Your task to perform on an android device: create a new album in the google photos Image 0: 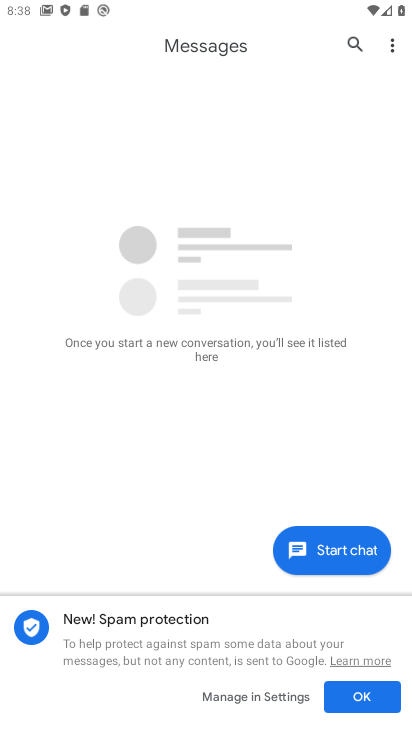
Step 0: press home button
Your task to perform on an android device: create a new album in the google photos Image 1: 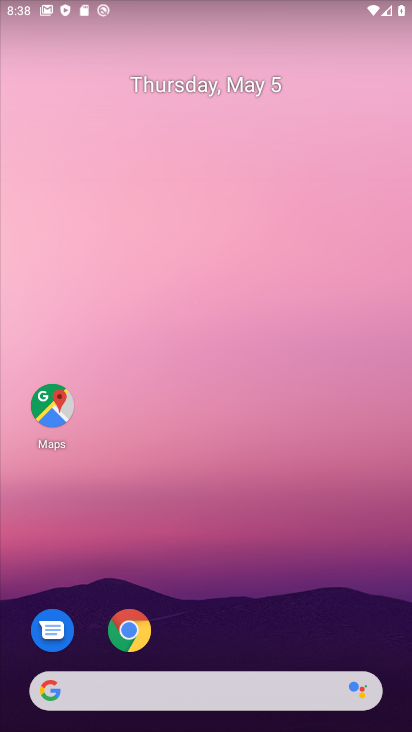
Step 1: drag from (263, 601) to (260, 2)
Your task to perform on an android device: create a new album in the google photos Image 2: 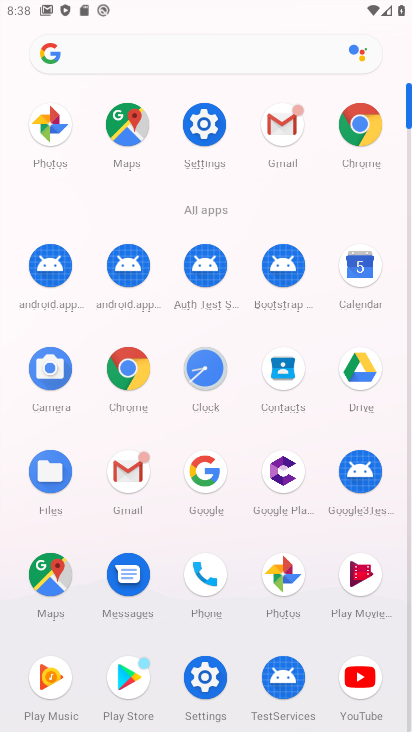
Step 2: click (271, 582)
Your task to perform on an android device: create a new album in the google photos Image 3: 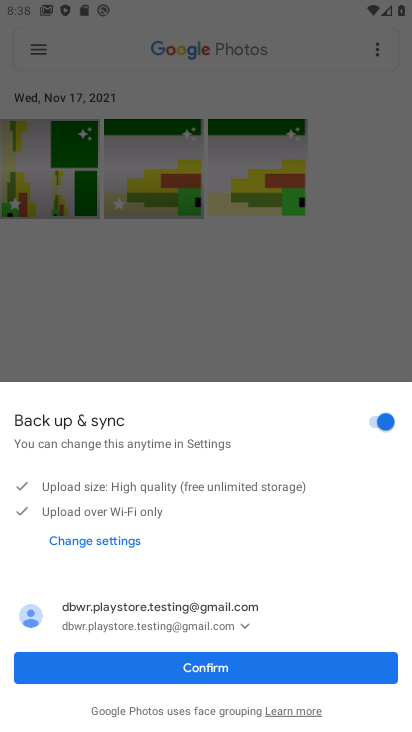
Step 3: click (118, 670)
Your task to perform on an android device: create a new album in the google photos Image 4: 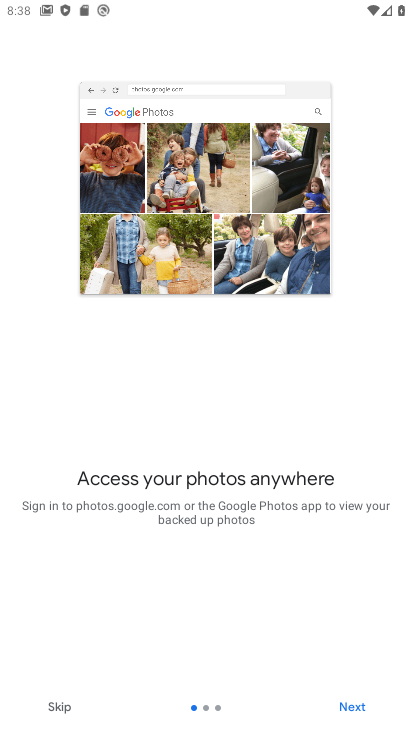
Step 4: click (344, 698)
Your task to perform on an android device: create a new album in the google photos Image 5: 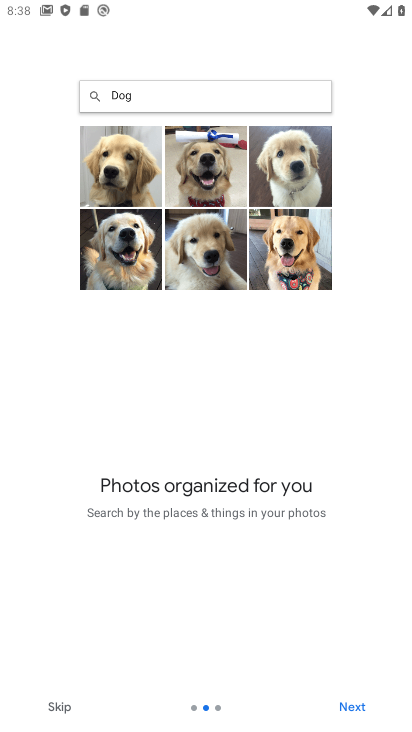
Step 5: click (344, 698)
Your task to perform on an android device: create a new album in the google photos Image 6: 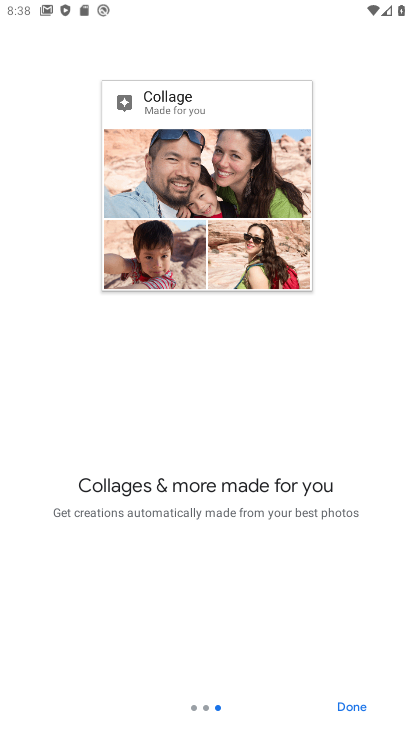
Step 6: click (344, 698)
Your task to perform on an android device: create a new album in the google photos Image 7: 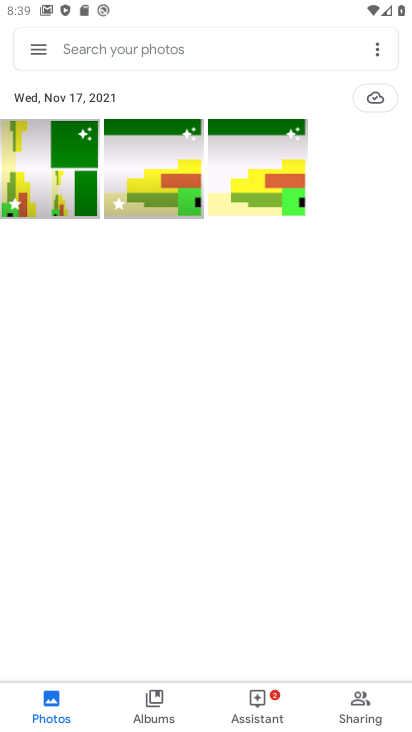
Step 7: click (145, 702)
Your task to perform on an android device: create a new album in the google photos Image 8: 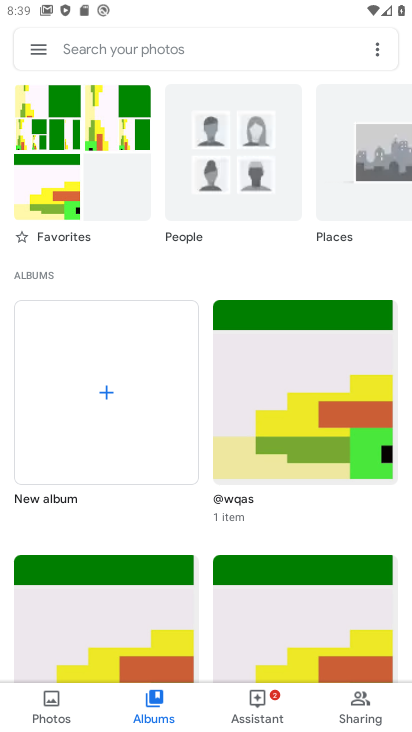
Step 8: click (113, 396)
Your task to perform on an android device: create a new album in the google photos Image 9: 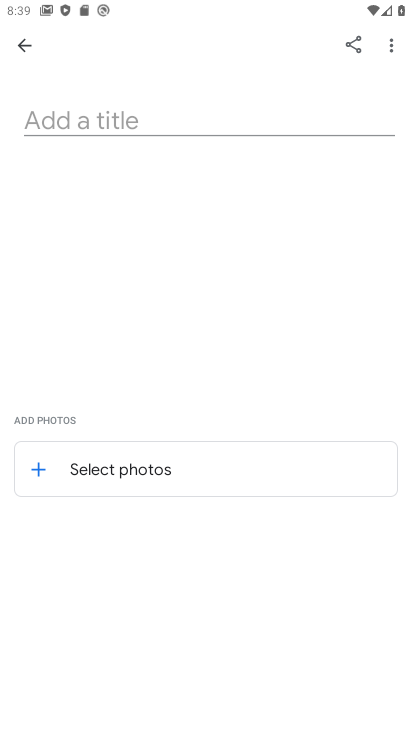
Step 9: click (100, 113)
Your task to perform on an android device: create a new album in the google photos Image 10: 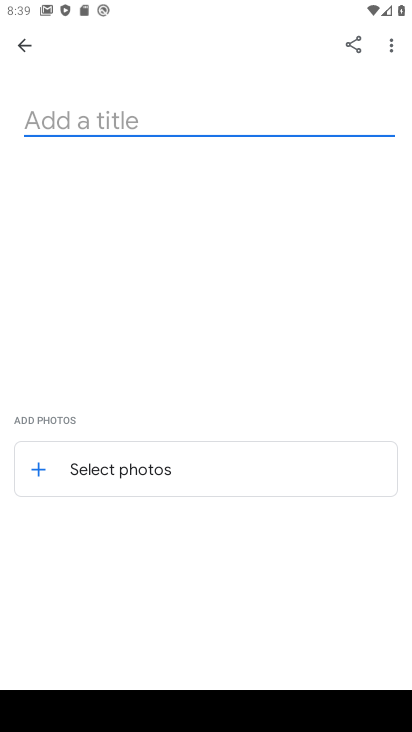
Step 10: type "hytfsfc"
Your task to perform on an android device: create a new album in the google photos Image 11: 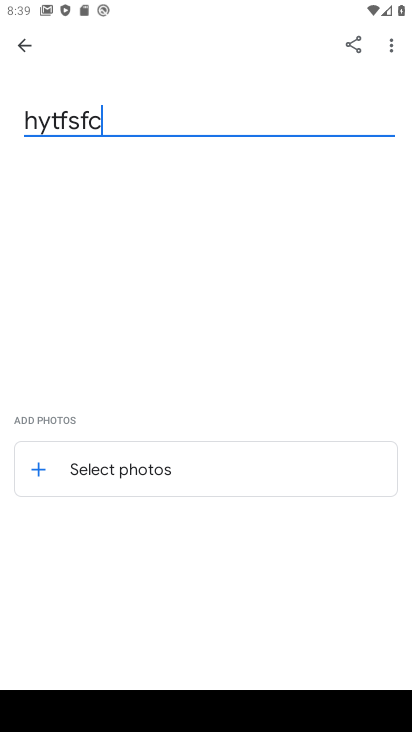
Step 11: click (108, 482)
Your task to perform on an android device: create a new album in the google photos Image 12: 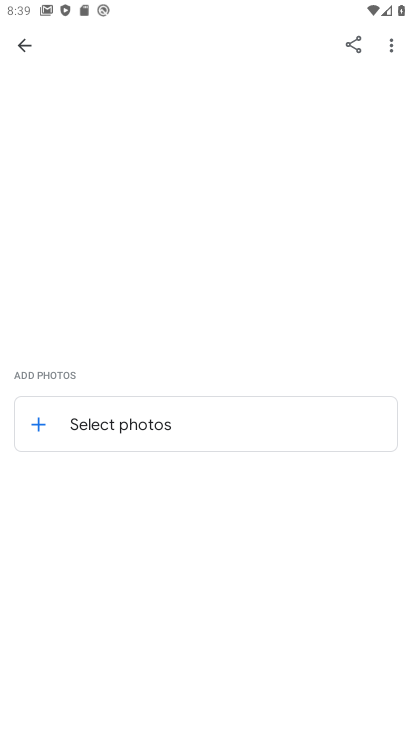
Step 12: click (45, 424)
Your task to perform on an android device: create a new album in the google photos Image 13: 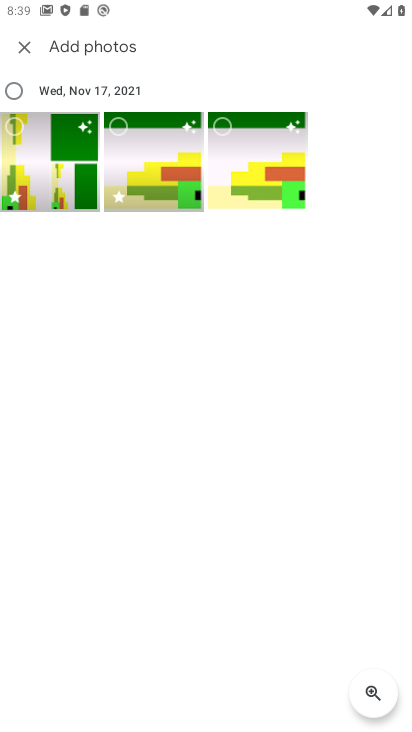
Step 13: click (165, 170)
Your task to perform on an android device: create a new album in the google photos Image 14: 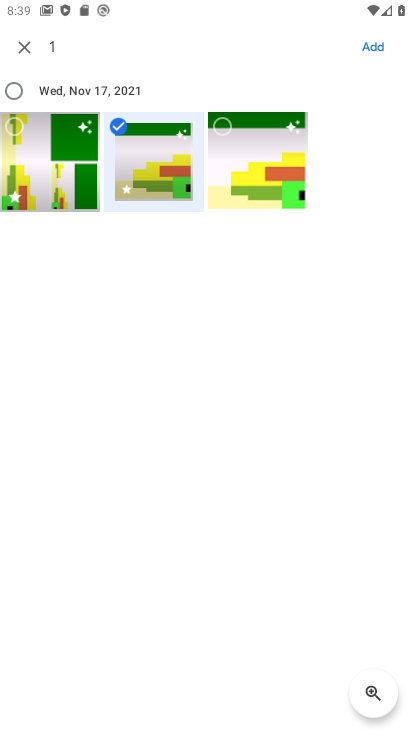
Step 14: click (9, 171)
Your task to perform on an android device: create a new album in the google photos Image 15: 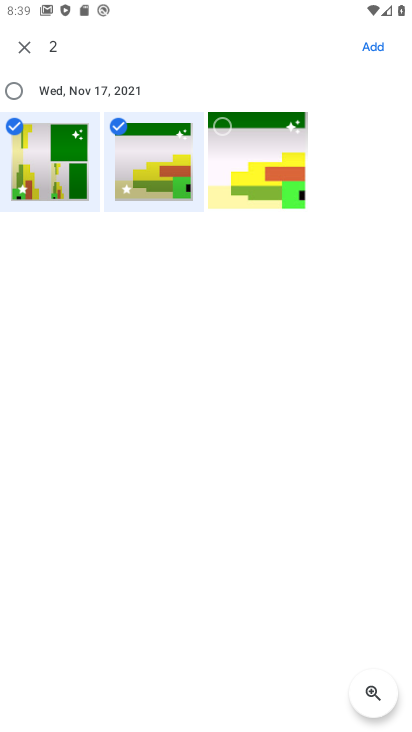
Step 15: click (365, 40)
Your task to perform on an android device: create a new album in the google photos Image 16: 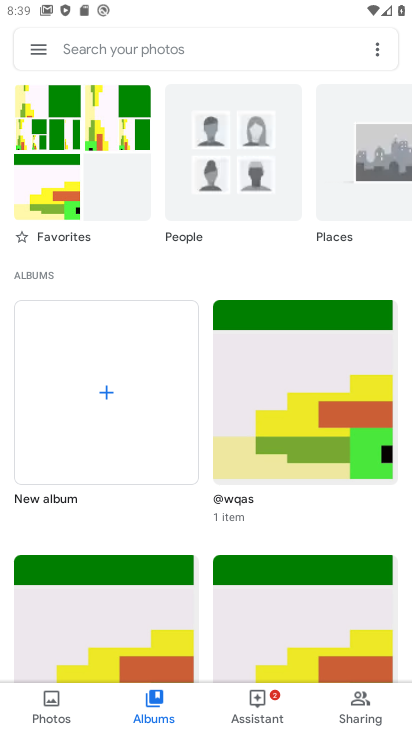
Step 16: task complete